Your task to perform on an android device: star an email in the gmail app Image 0: 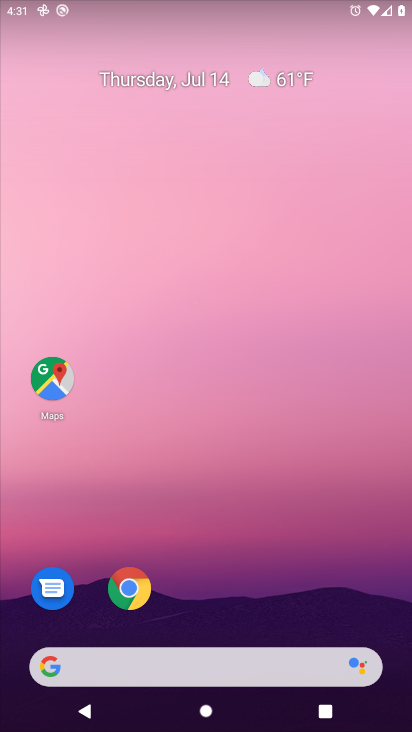
Step 0: press home button
Your task to perform on an android device: star an email in the gmail app Image 1: 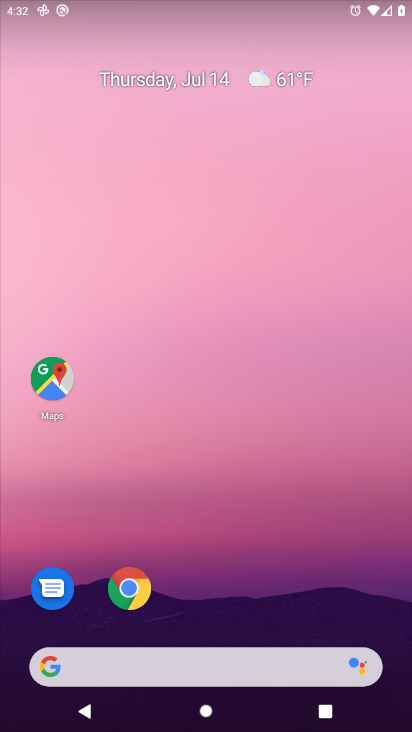
Step 1: drag from (222, 628) to (232, 155)
Your task to perform on an android device: star an email in the gmail app Image 2: 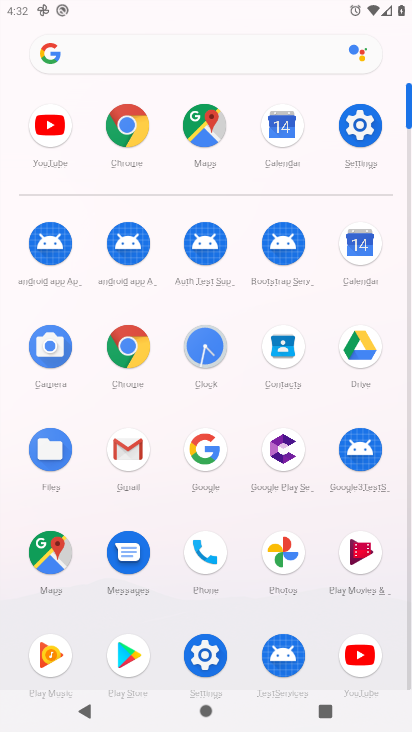
Step 2: click (140, 443)
Your task to perform on an android device: star an email in the gmail app Image 3: 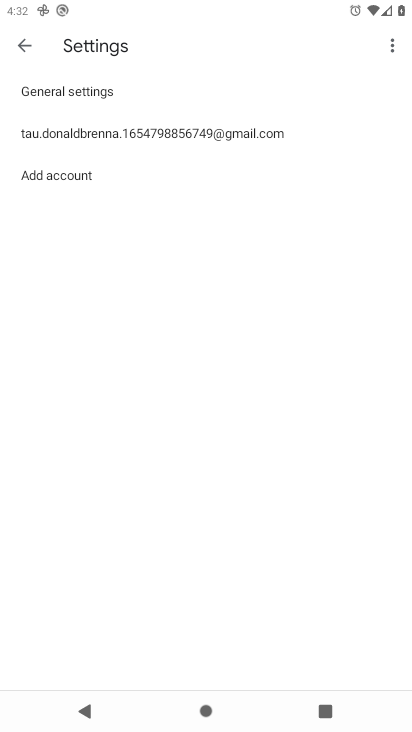
Step 3: click (25, 50)
Your task to perform on an android device: star an email in the gmail app Image 4: 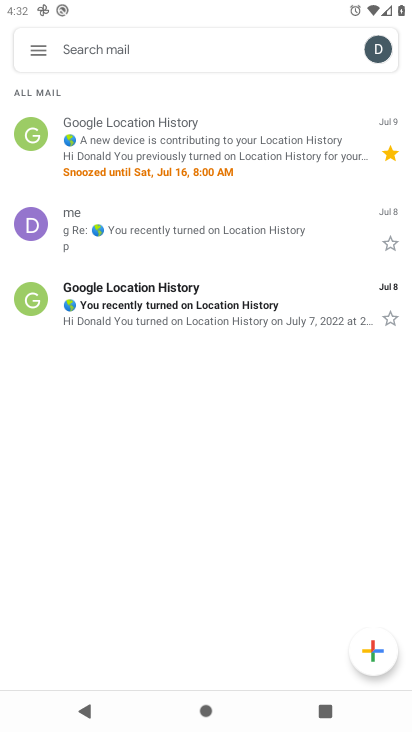
Step 4: click (34, 55)
Your task to perform on an android device: star an email in the gmail app Image 5: 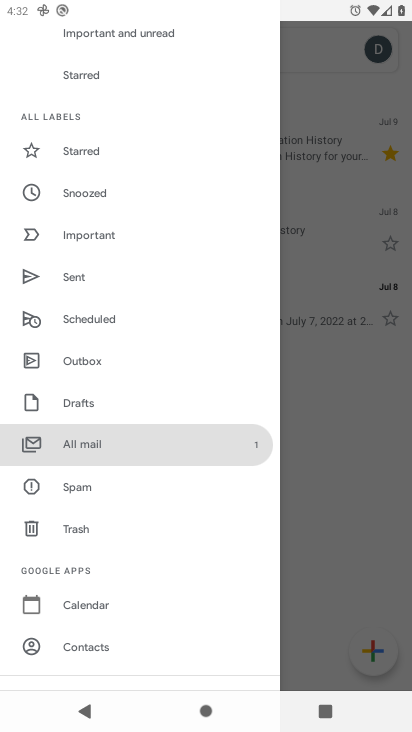
Step 5: click (73, 450)
Your task to perform on an android device: star an email in the gmail app Image 6: 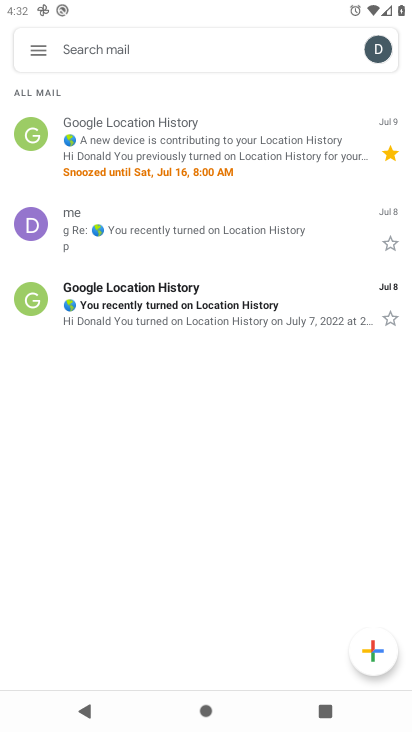
Step 6: click (156, 139)
Your task to perform on an android device: star an email in the gmail app Image 7: 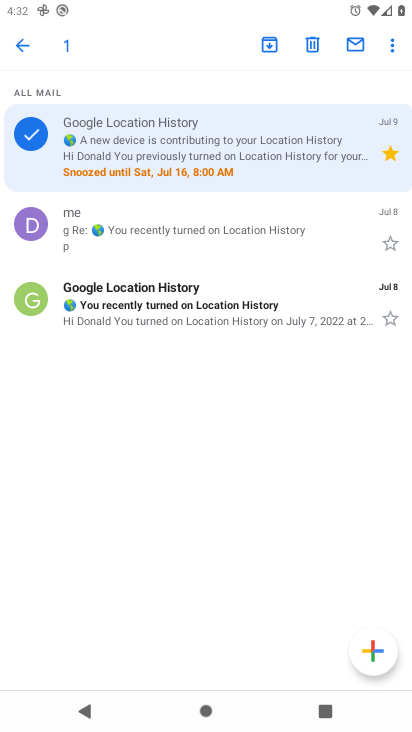
Step 7: click (392, 51)
Your task to perform on an android device: star an email in the gmail app Image 8: 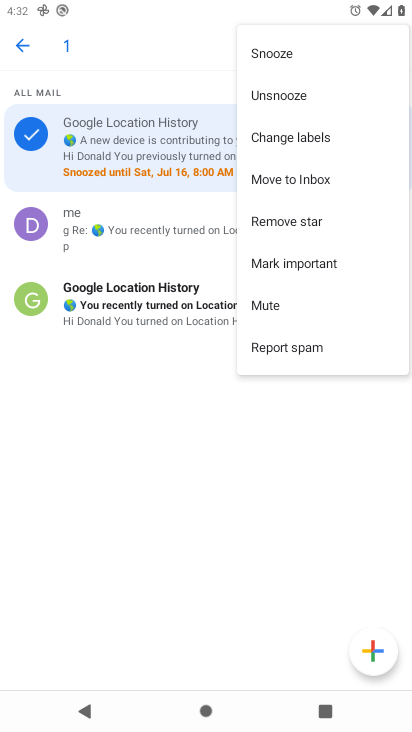
Step 8: click (152, 131)
Your task to perform on an android device: star an email in the gmail app Image 9: 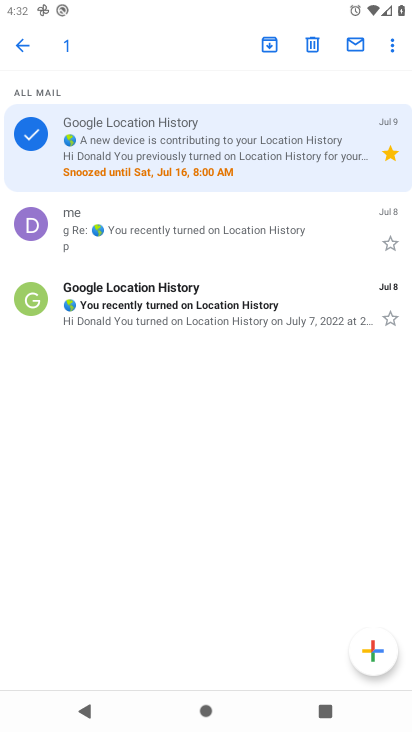
Step 9: task complete